Your task to perform on an android device: Open the web browser Image 0: 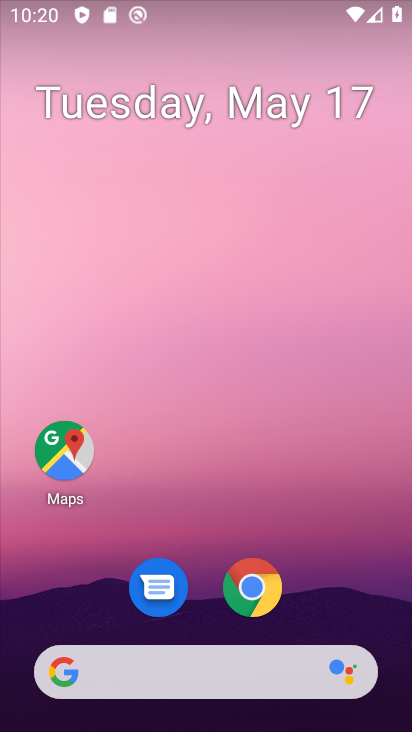
Step 0: click (250, 591)
Your task to perform on an android device: Open the web browser Image 1: 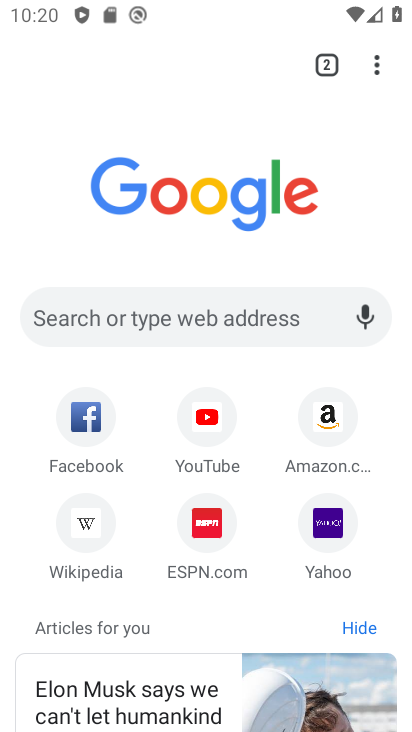
Step 1: task complete